Your task to perform on an android device: Search for hotels in Boston Image 0: 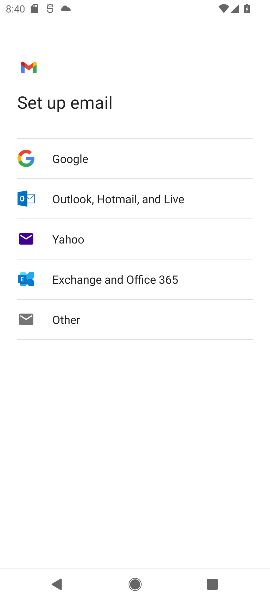
Step 0: press home button
Your task to perform on an android device: Search for hotels in Boston Image 1: 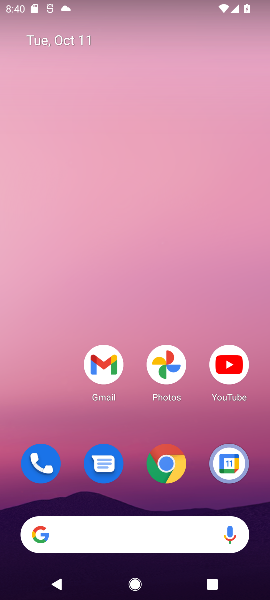
Step 1: click (70, 78)
Your task to perform on an android device: Search for hotels in Boston Image 2: 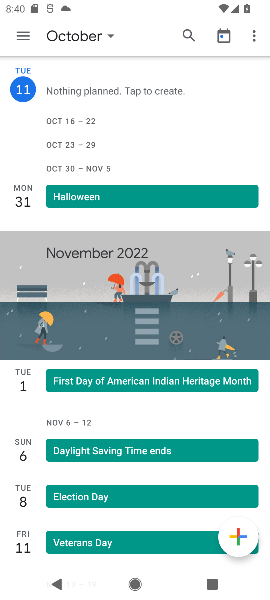
Step 2: press home button
Your task to perform on an android device: Search for hotels in Boston Image 3: 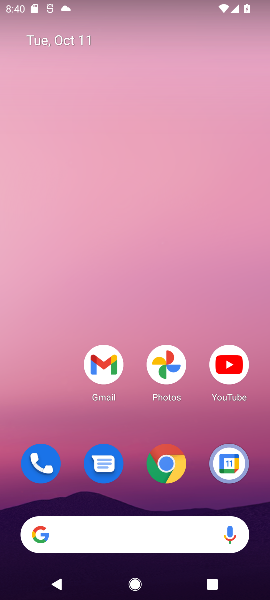
Step 3: drag from (120, 487) to (116, 168)
Your task to perform on an android device: Search for hotels in Boston Image 4: 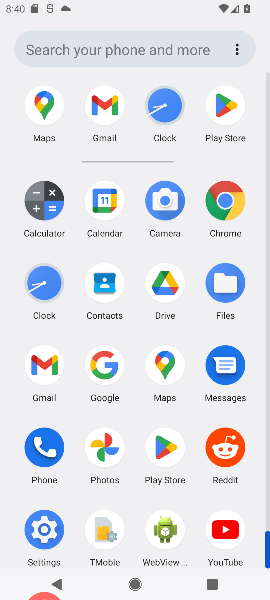
Step 4: click (101, 365)
Your task to perform on an android device: Search for hotels in Boston Image 5: 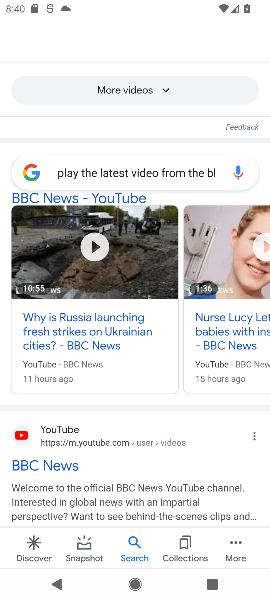
Step 5: click (137, 169)
Your task to perform on an android device: Search for hotels in Boston Image 6: 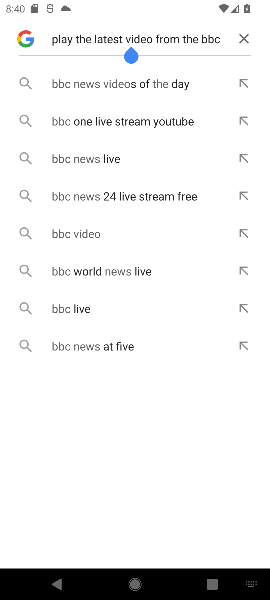
Step 6: click (249, 41)
Your task to perform on an android device: Search for hotels in Boston Image 7: 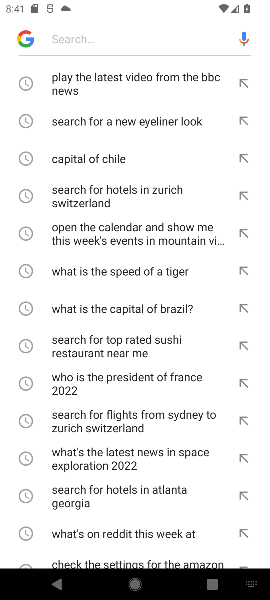
Step 7: click (119, 36)
Your task to perform on an android device: Search for hotels in Boston Image 8: 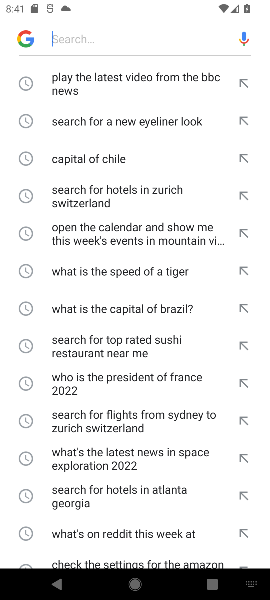
Step 8: type "Search for hotels in Boston "
Your task to perform on an android device: Search for hotels in Boston Image 9: 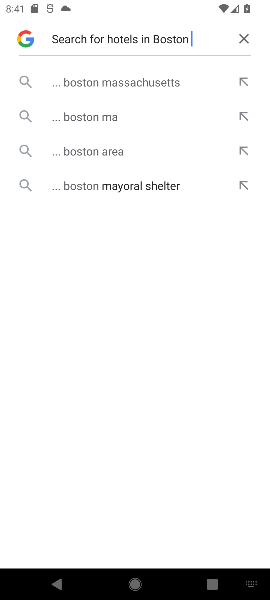
Step 9: click (101, 160)
Your task to perform on an android device: Search for hotels in Boston Image 10: 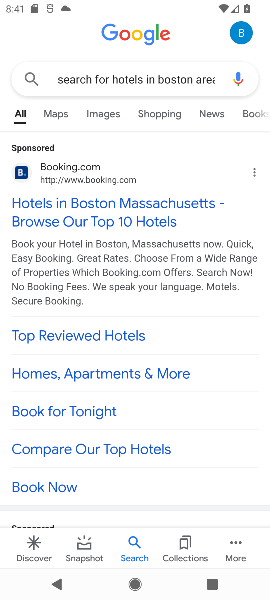
Step 10: click (73, 208)
Your task to perform on an android device: Search for hotels in Boston Image 11: 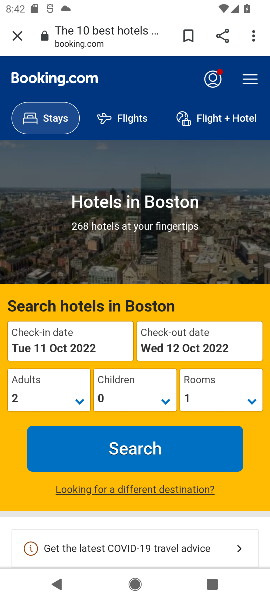
Step 11: click (153, 439)
Your task to perform on an android device: Search for hotels in Boston Image 12: 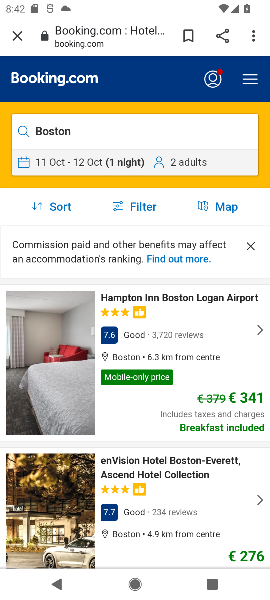
Step 12: task complete